Your task to perform on an android device: change notification settings in the gmail app Image 0: 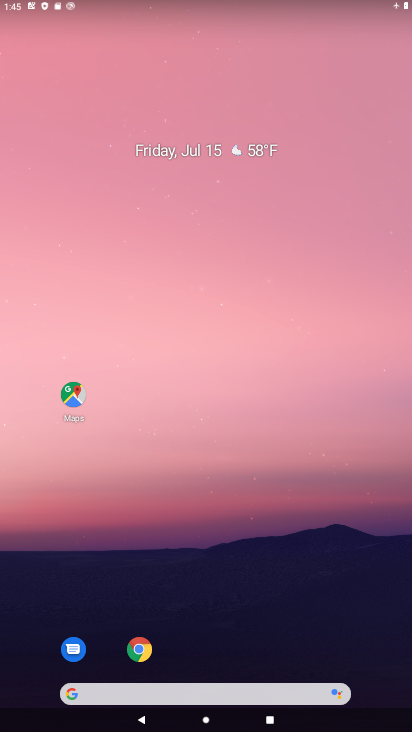
Step 0: drag from (314, 702) to (365, 13)
Your task to perform on an android device: change notification settings in the gmail app Image 1: 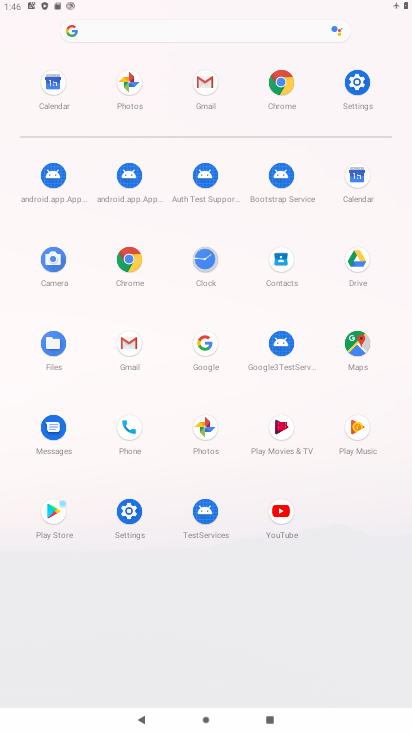
Step 1: click (118, 347)
Your task to perform on an android device: change notification settings in the gmail app Image 2: 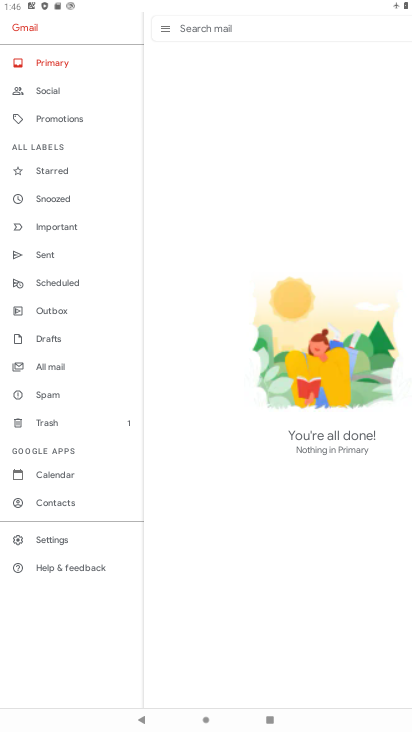
Step 2: click (69, 547)
Your task to perform on an android device: change notification settings in the gmail app Image 3: 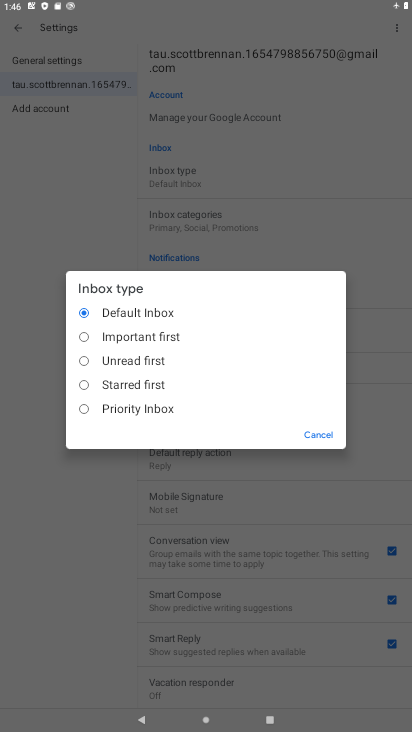
Step 3: click (312, 432)
Your task to perform on an android device: change notification settings in the gmail app Image 4: 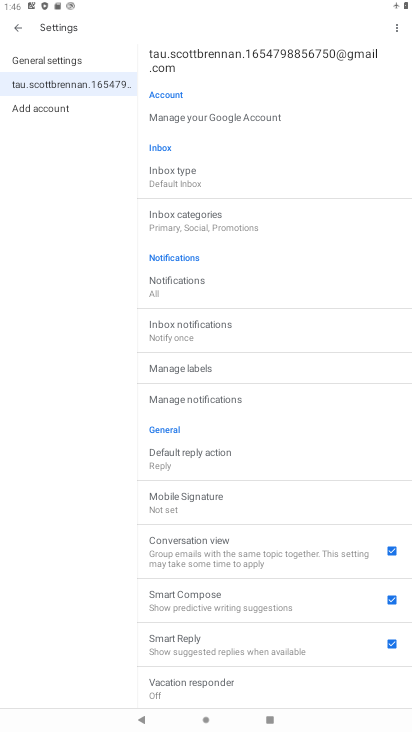
Step 4: click (232, 404)
Your task to perform on an android device: change notification settings in the gmail app Image 5: 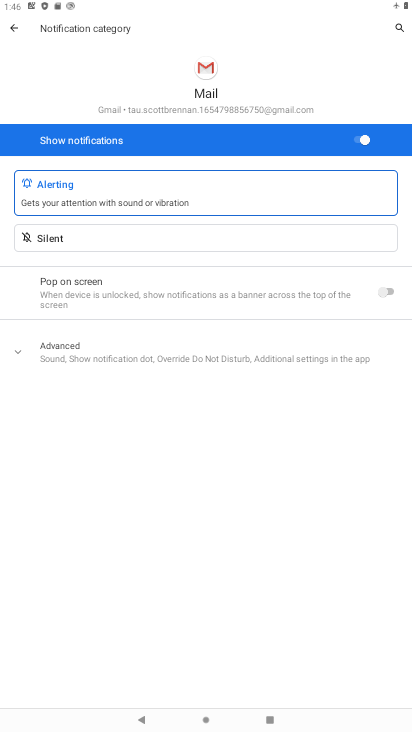
Step 5: click (359, 138)
Your task to perform on an android device: change notification settings in the gmail app Image 6: 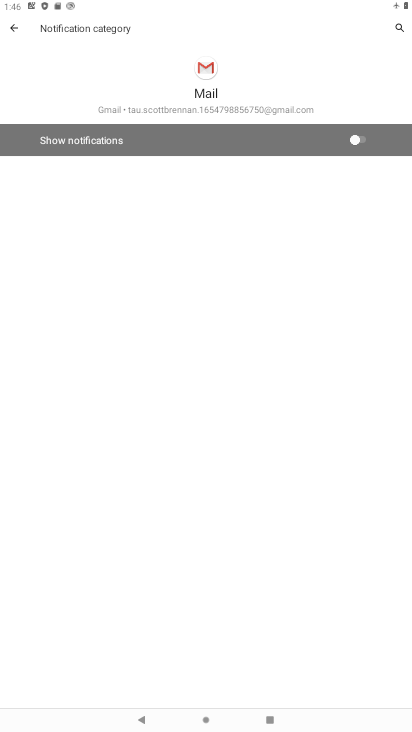
Step 6: task complete